Your task to perform on an android device: Open Amazon Image 0: 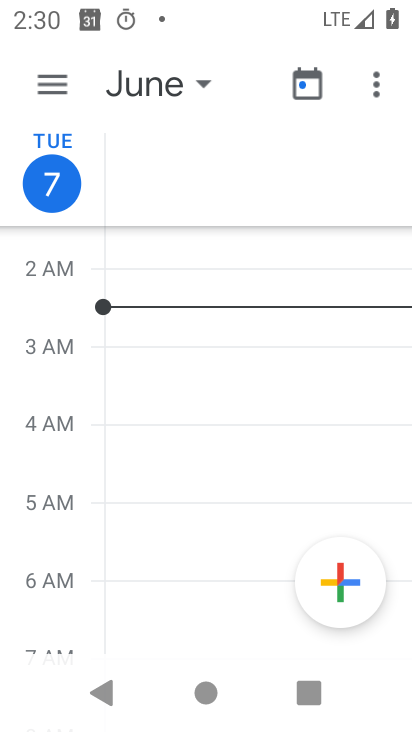
Step 0: press home button
Your task to perform on an android device: Open Amazon Image 1: 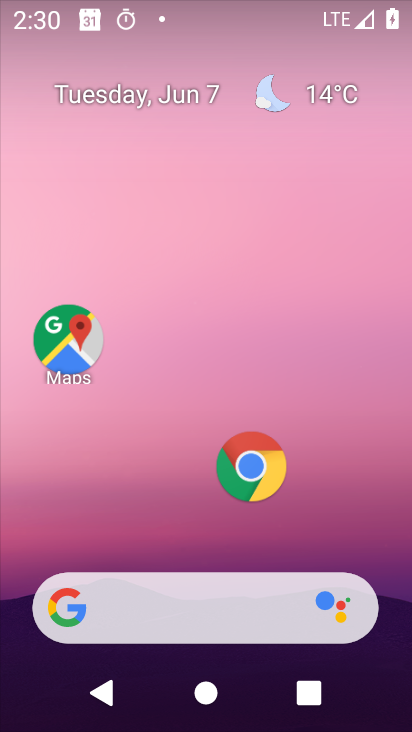
Step 1: click (261, 495)
Your task to perform on an android device: Open Amazon Image 2: 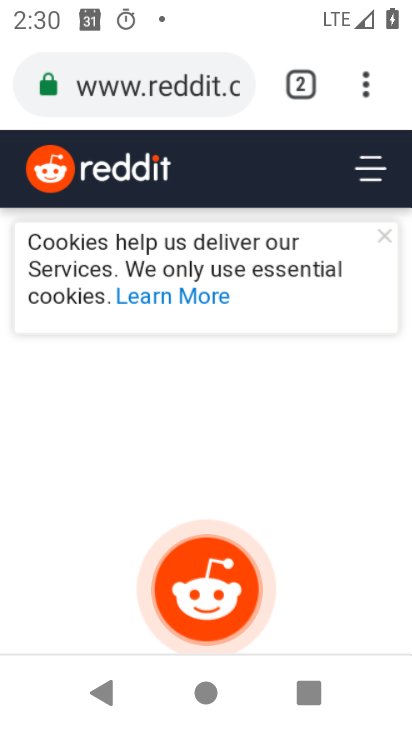
Step 2: click (297, 102)
Your task to perform on an android device: Open Amazon Image 3: 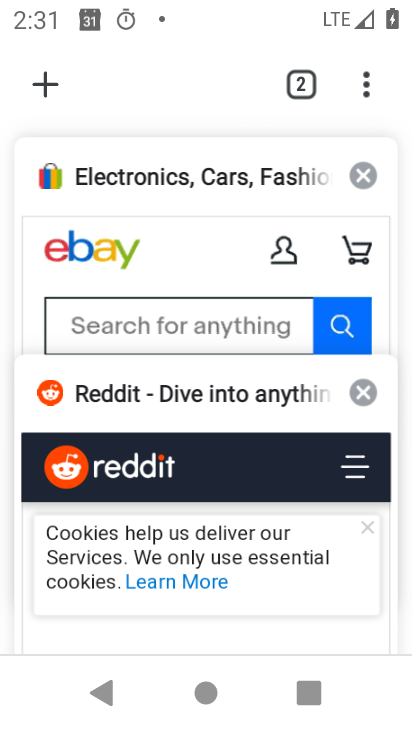
Step 3: click (361, 184)
Your task to perform on an android device: Open Amazon Image 4: 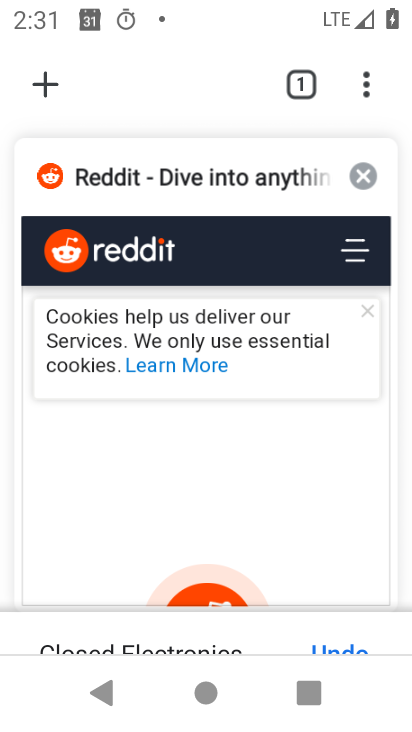
Step 4: click (361, 183)
Your task to perform on an android device: Open Amazon Image 5: 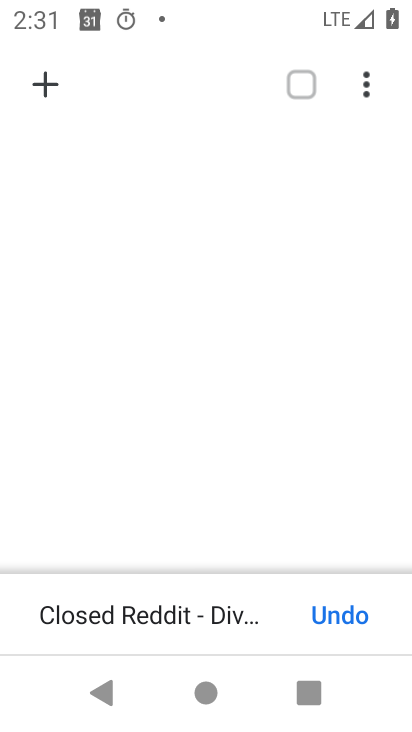
Step 5: click (42, 78)
Your task to perform on an android device: Open Amazon Image 6: 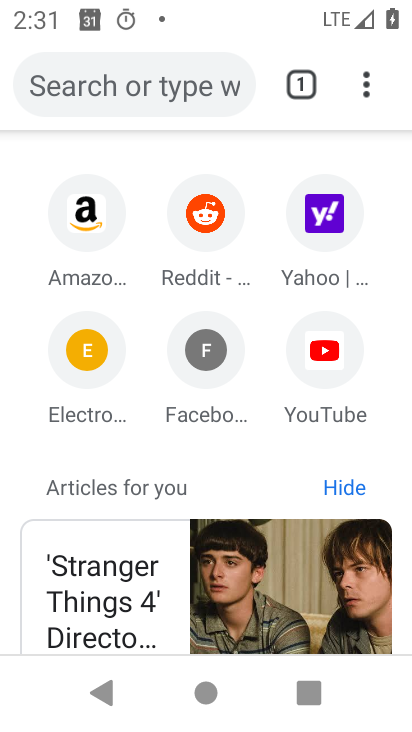
Step 6: click (103, 239)
Your task to perform on an android device: Open Amazon Image 7: 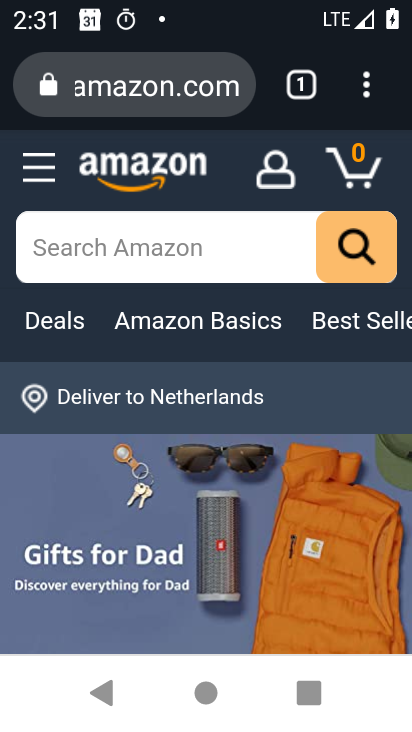
Step 7: task complete